Your task to perform on an android device: Open Google Maps Image 0: 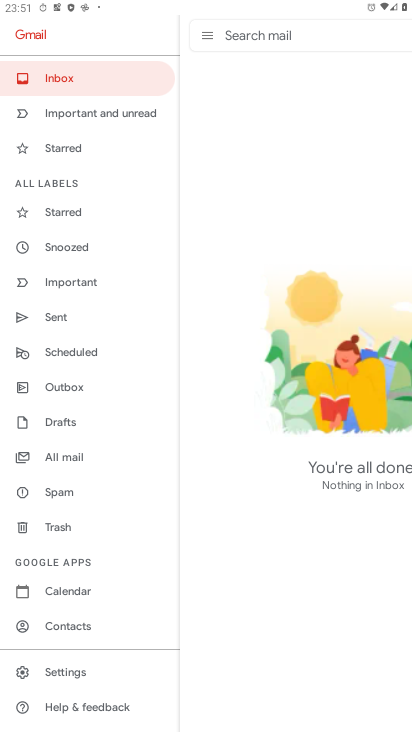
Step 0: press home button
Your task to perform on an android device: Open Google Maps Image 1: 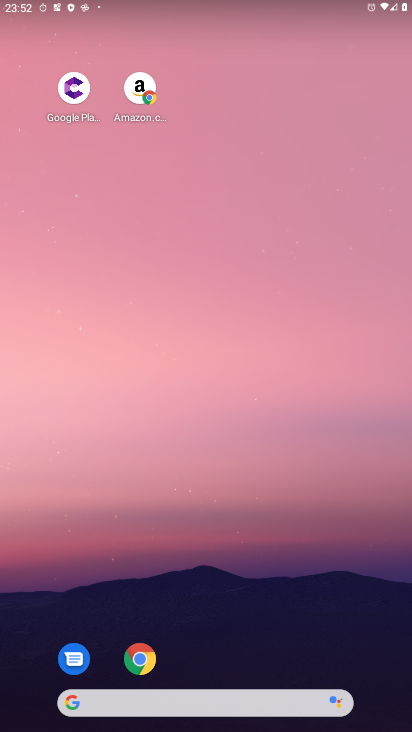
Step 1: drag from (255, 649) to (316, 200)
Your task to perform on an android device: Open Google Maps Image 2: 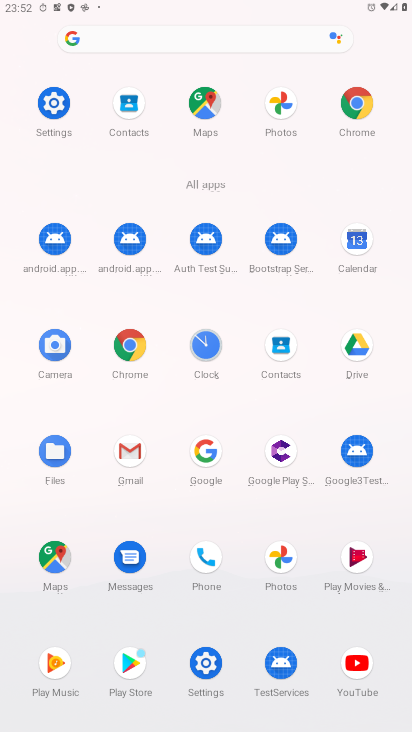
Step 2: click (48, 562)
Your task to perform on an android device: Open Google Maps Image 3: 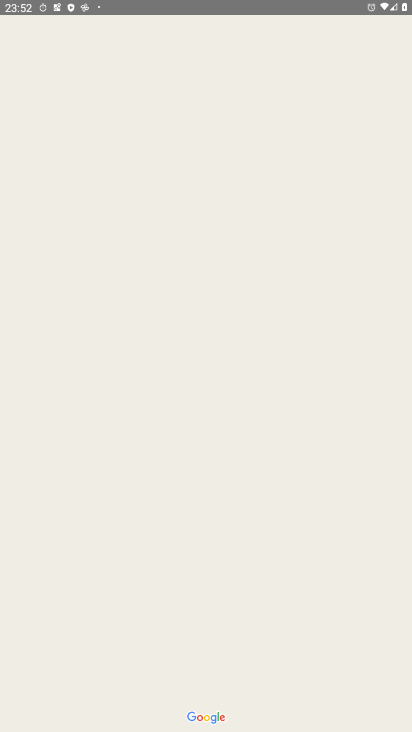
Step 3: task complete